Your task to perform on an android device: find photos in the google photos app Image 0: 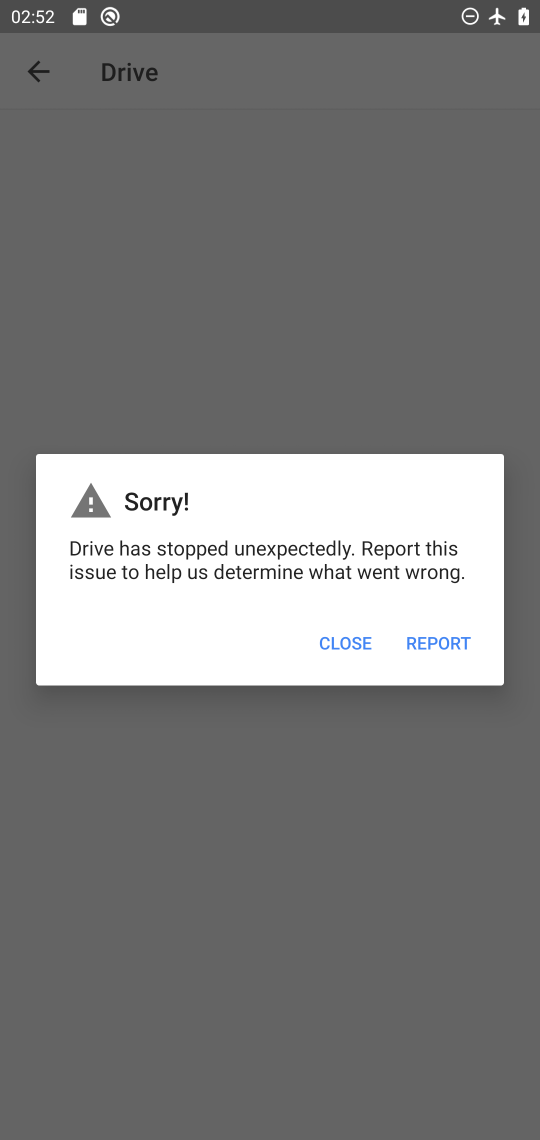
Step 0: press home button
Your task to perform on an android device: find photos in the google photos app Image 1: 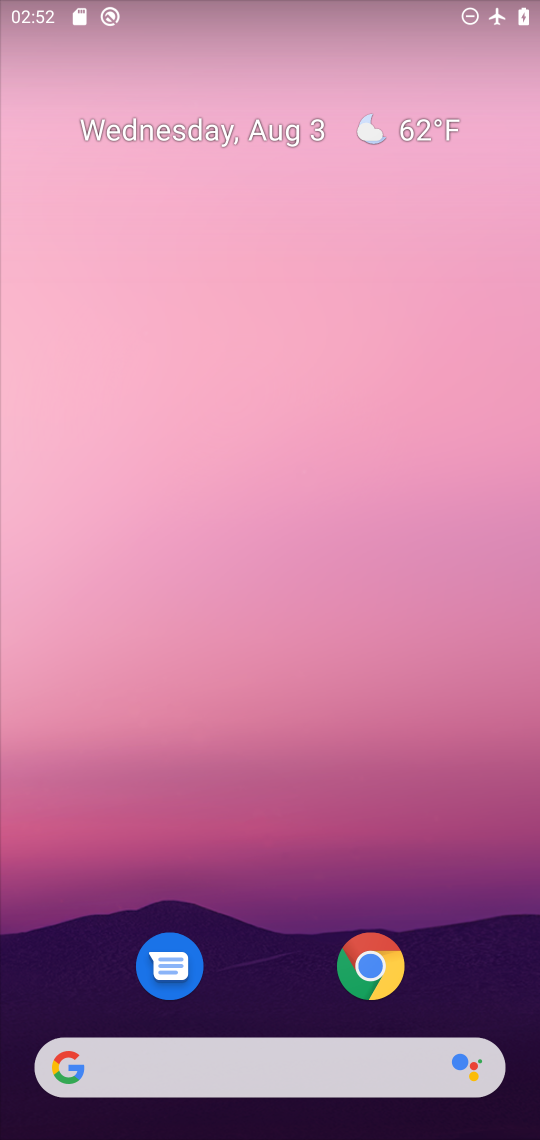
Step 1: drag from (272, 903) to (281, 142)
Your task to perform on an android device: find photos in the google photos app Image 2: 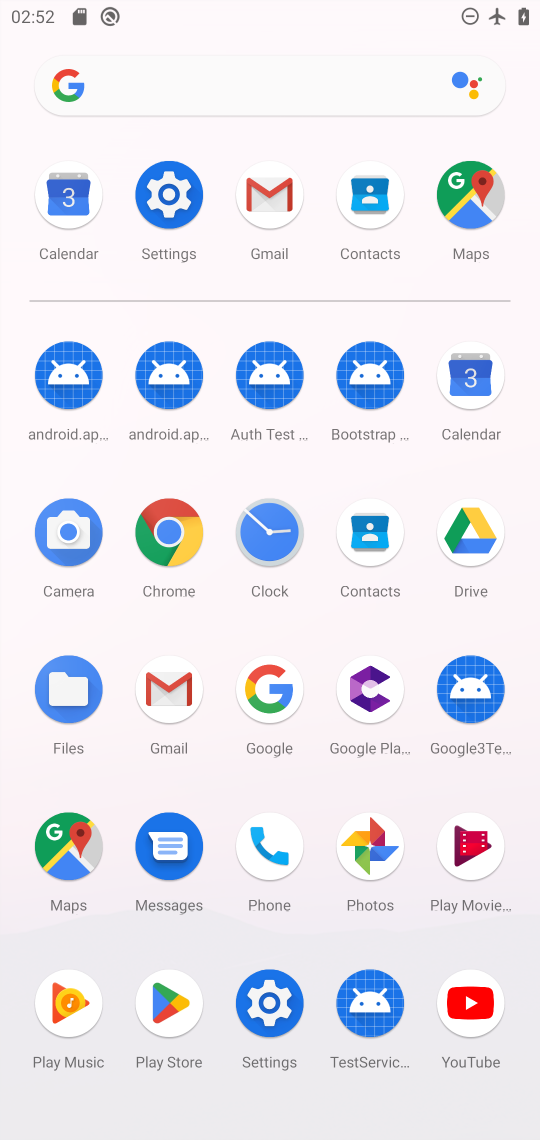
Step 2: click (347, 840)
Your task to perform on an android device: find photos in the google photos app Image 3: 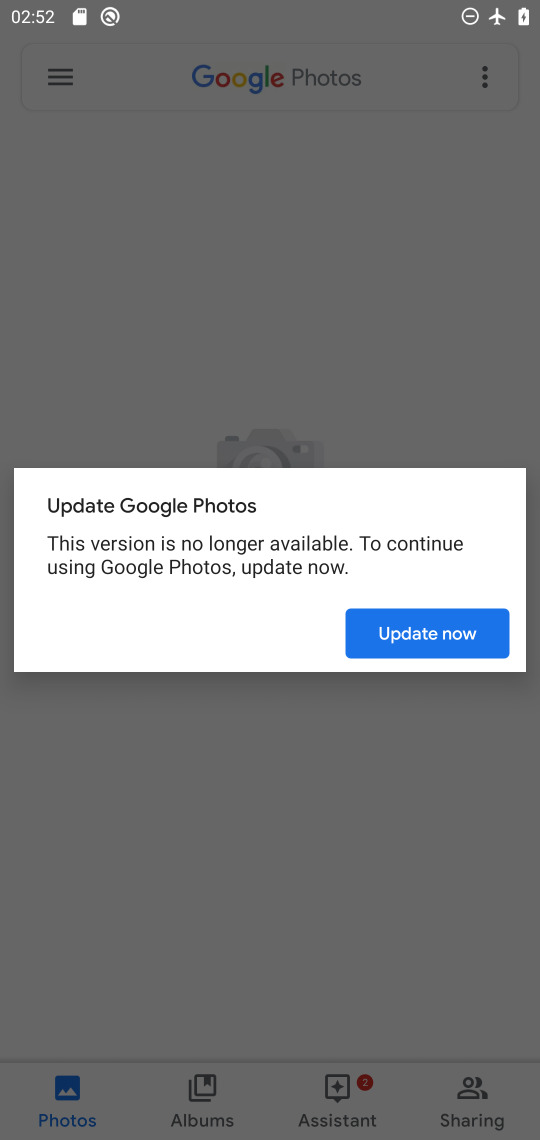
Step 3: click (417, 630)
Your task to perform on an android device: find photos in the google photos app Image 4: 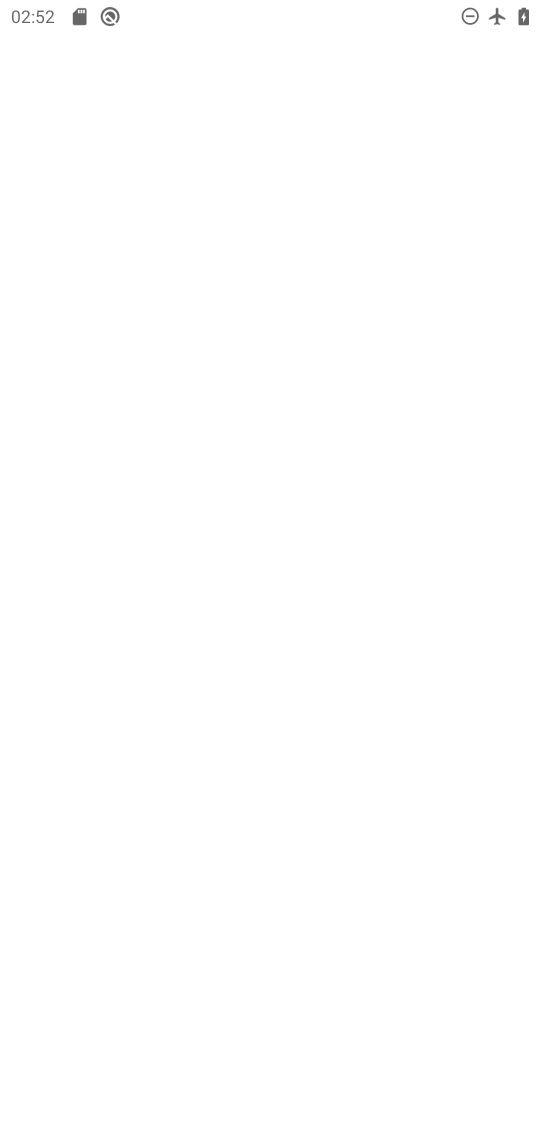
Step 4: press back button
Your task to perform on an android device: find photos in the google photos app Image 5: 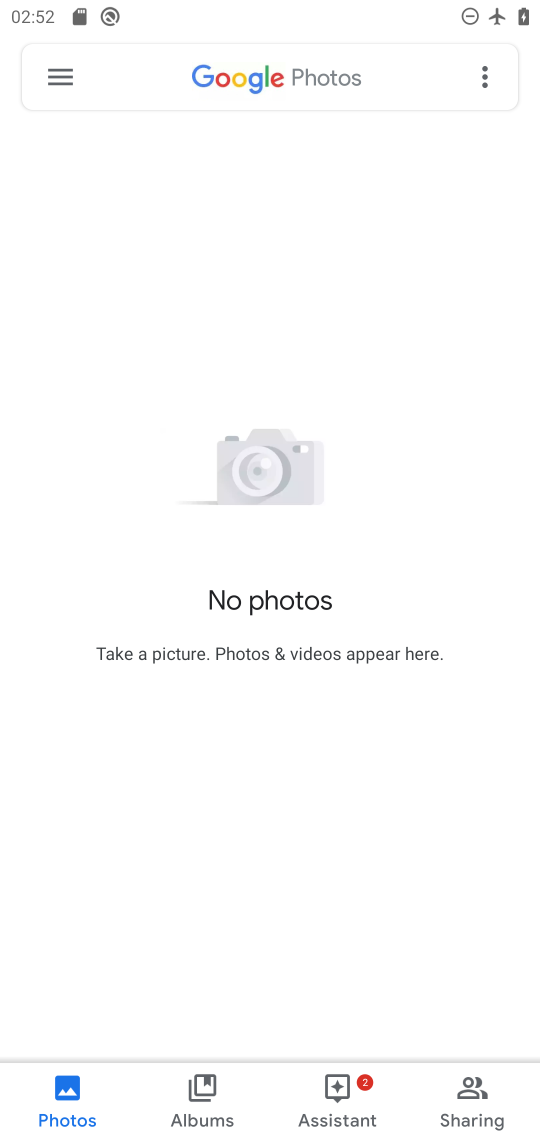
Step 5: click (294, 96)
Your task to perform on an android device: find photos in the google photos app Image 6: 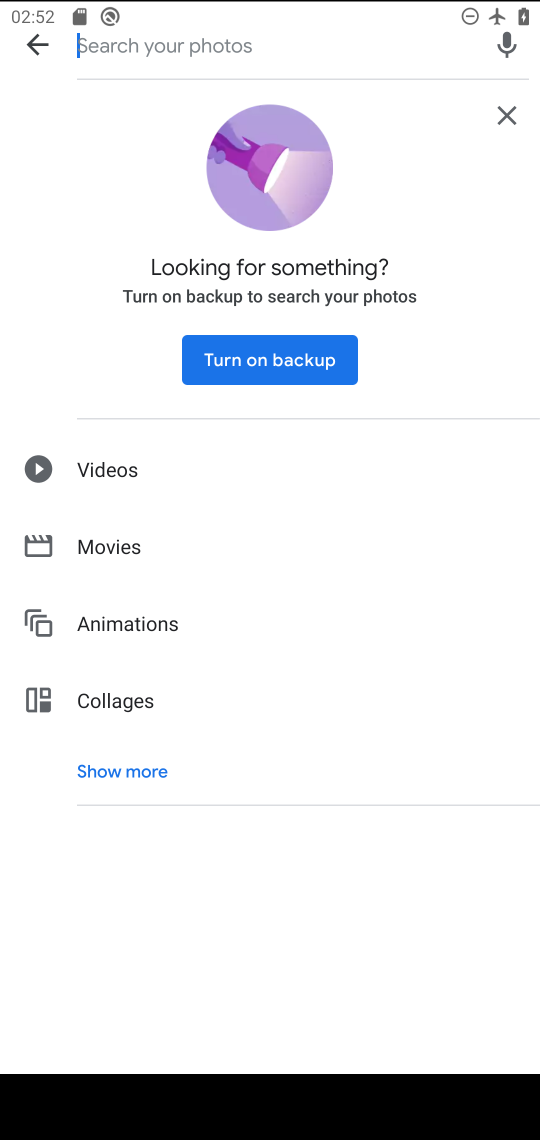
Step 6: type "aa"
Your task to perform on an android device: find photos in the google photos app Image 7: 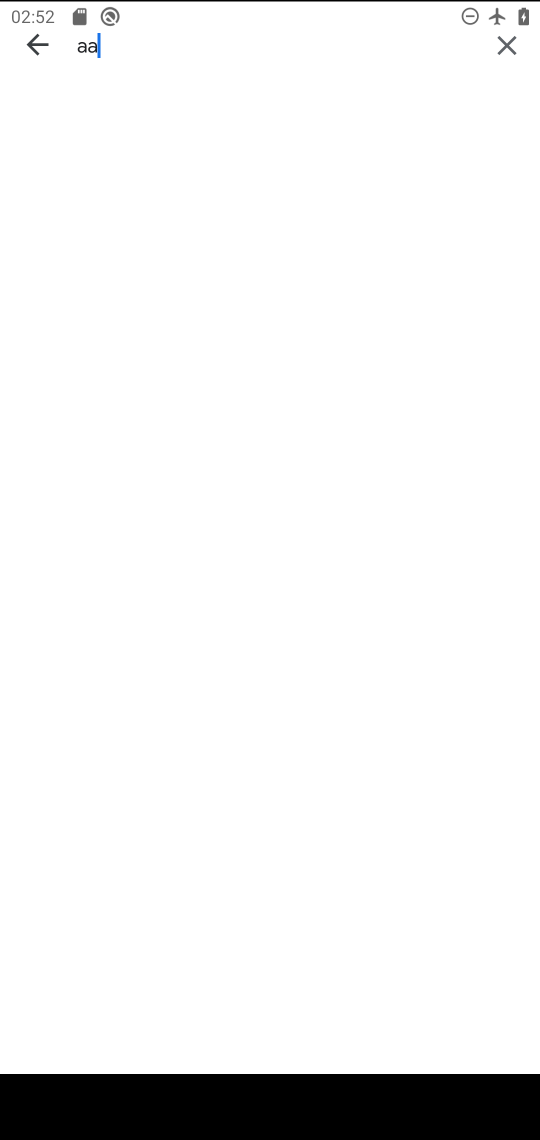
Step 7: type ""
Your task to perform on an android device: find photos in the google photos app Image 8: 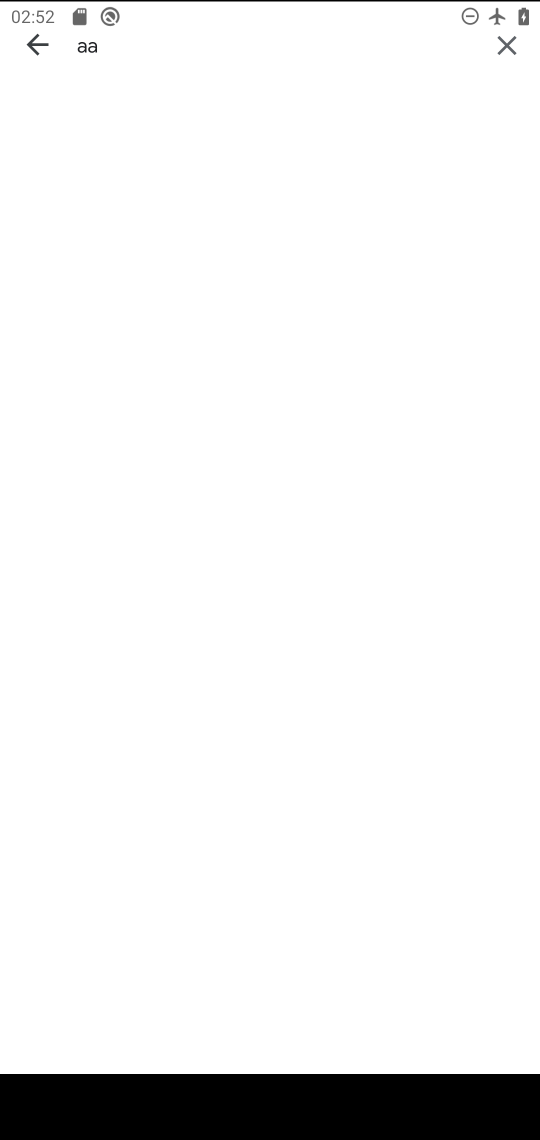
Step 8: task complete